Your task to perform on an android device: Open battery settings Image 0: 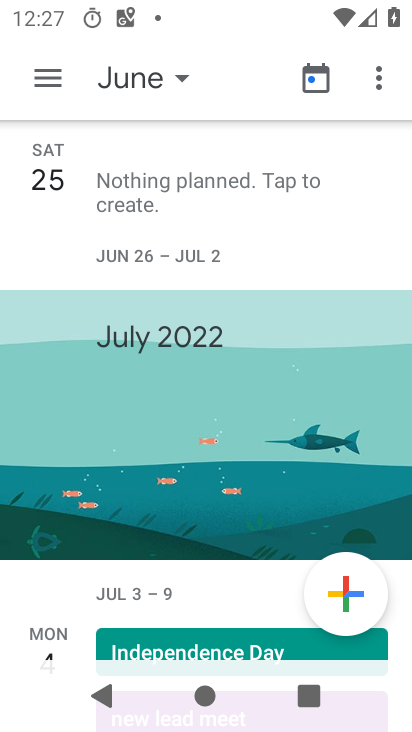
Step 0: press home button
Your task to perform on an android device: Open battery settings Image 1: 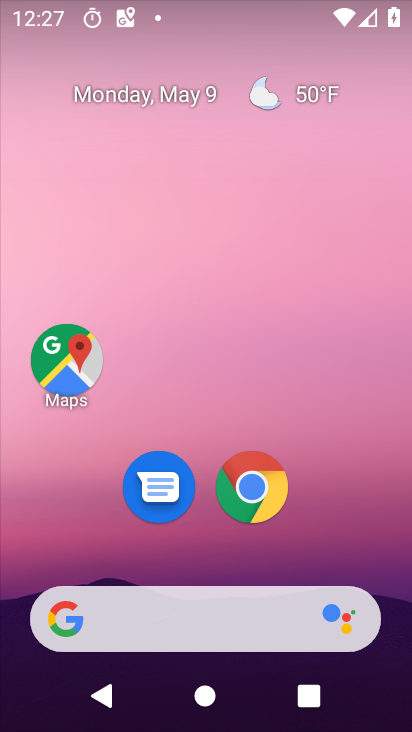
Step 1: drag from (352, 365) to (374, 201)
Your task to perform on an android device: Open battery settings Image 2: 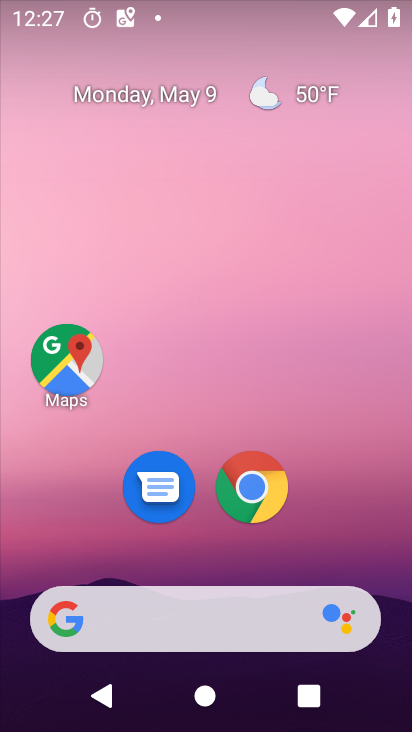
Step 2: drag from (314, 529) to (334, 352)
Your task to perform on an android device: Open battery settings Image 3: 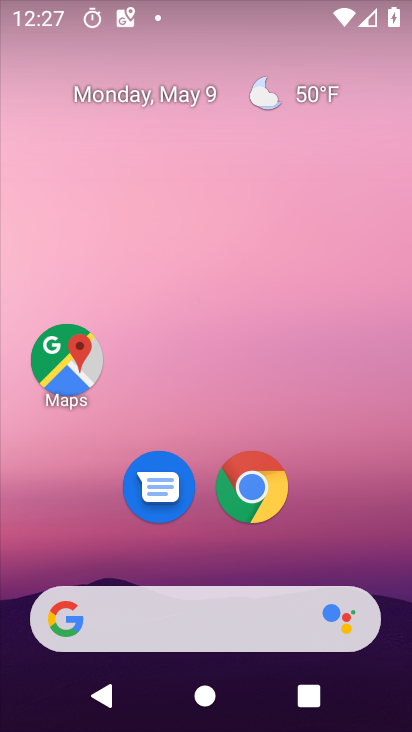
Step 3: drag from (330, 535) to (384, 124)
Your task to perform on an android device: Open battery settings Image 4: 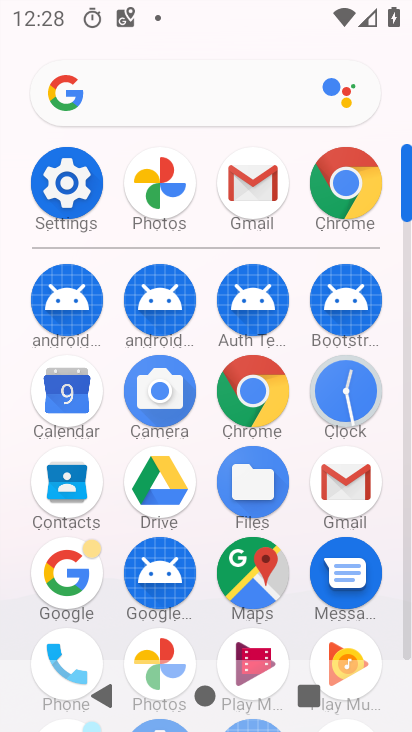
Step 4: click (81, 170)
Your task to perform on an android device: Open battery settings Image 5: 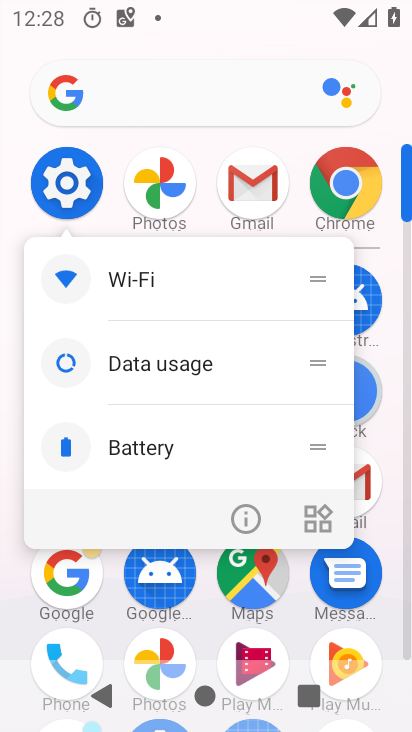
Step 5: click (61, 210)
Your task to perform on an android device: Open battery settings Image 6: 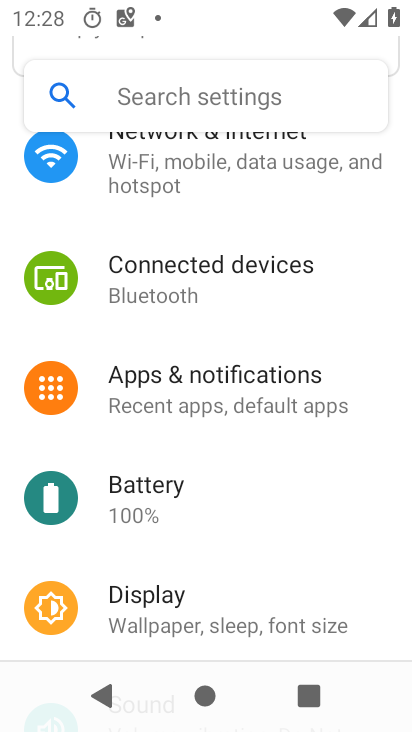
Step 6: click (196, 505)
Your task to perform on an android device: Open battery settings Image 7: 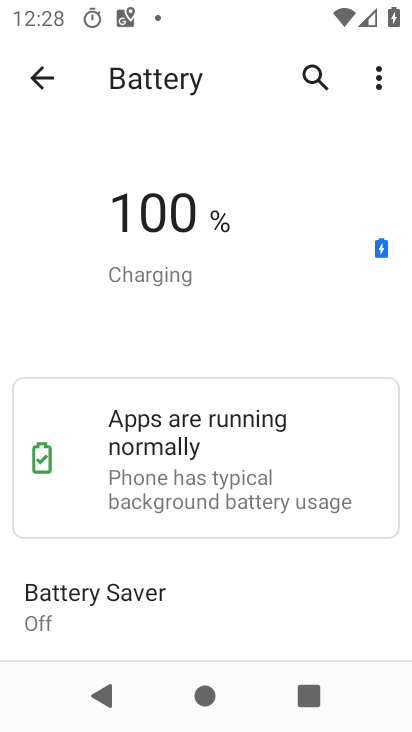
Step 7: task complete